Your task to perform on an android device: turn on location history Image 0: 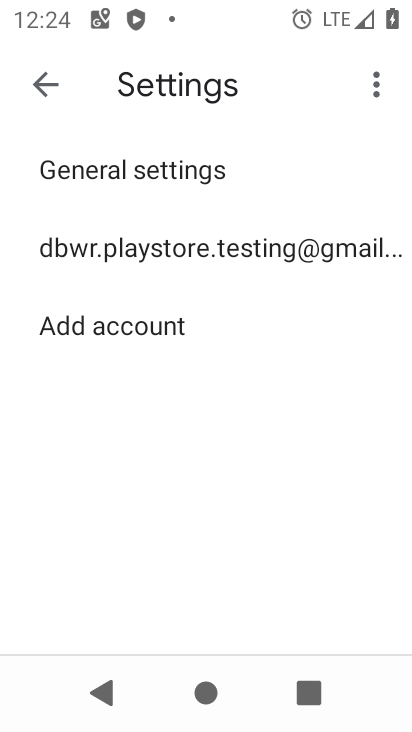
Step 0: press home button
Your task to perform on an android device: turn on location history Image 1: 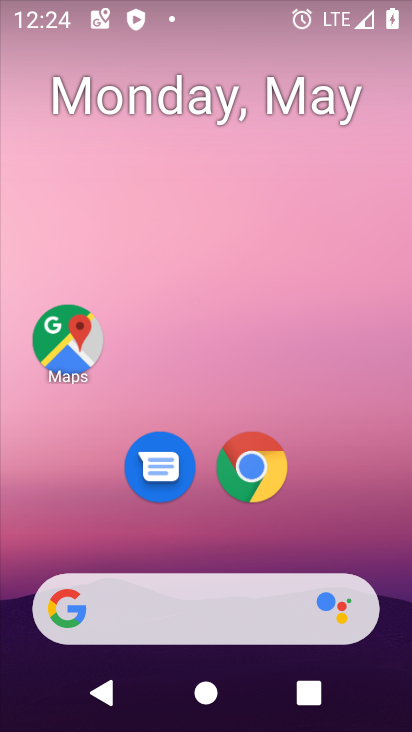
Step 1: click (73, 344)
Your task to perform on an android device: turn on location history Image 2: 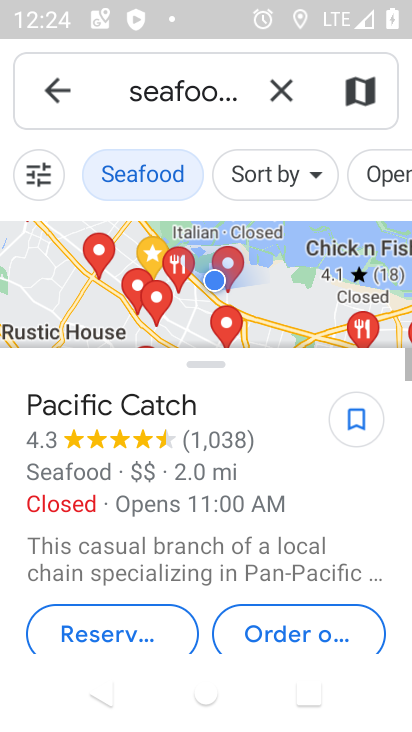
Step 2: click (273, 103)
Your task to perform on an android device: turn on location history Image 3: 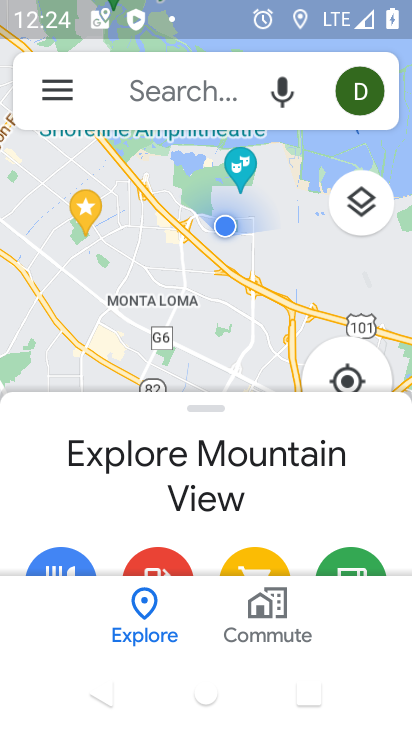
Step 3: click (42, 102)
Your task to perform on an android device: turn on location history Image 4: 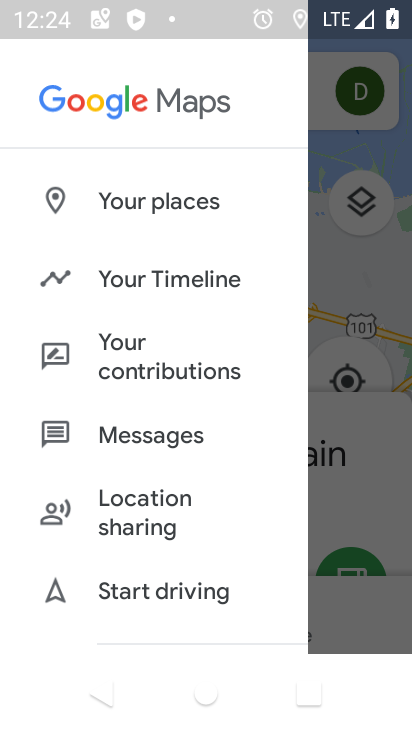
Step 4: click (133, 274)
Your task to perform on an android device: turn on location history Image 5: 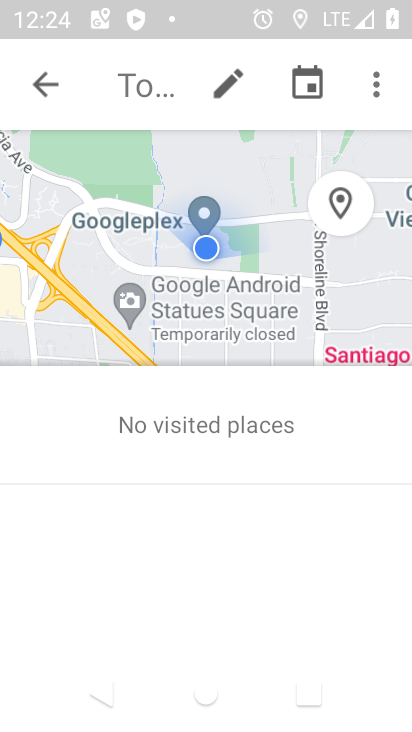
Step 5: click (381, 87)
Your task to perform on an android device: turn on location history Image 6: 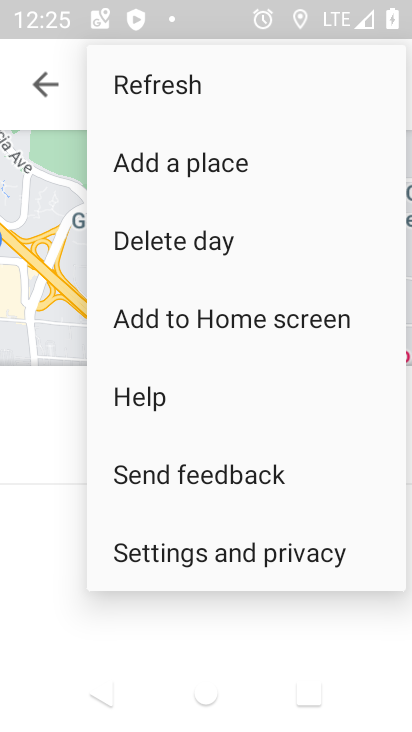
Step 6: click (197, 552)
Your task to perform on an android device: turn on location history Image 7: 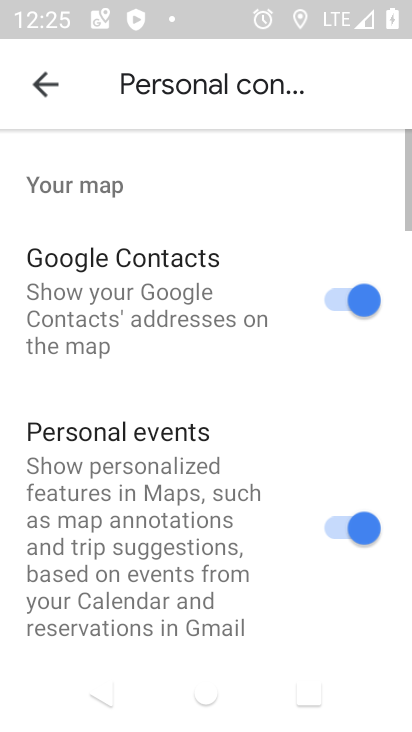
Step 7: drag from (188, 576) to (191, 85)
Your task to perform on an android device: turn on location history Image 8: 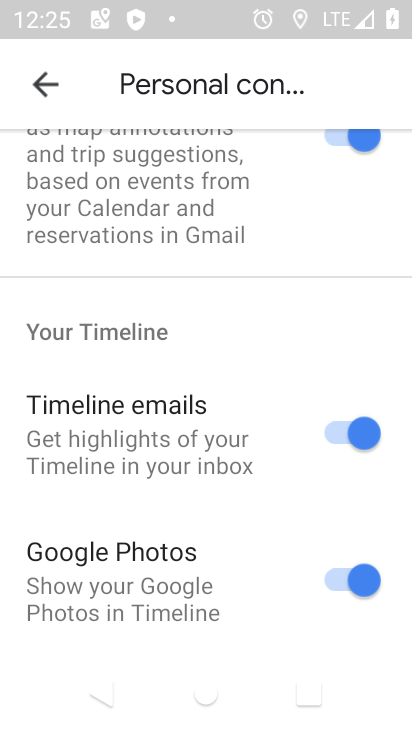
Step 8: drag from (154, 571) to (122, 109)
Your task to perform on an android device: turn on location history Image 9: 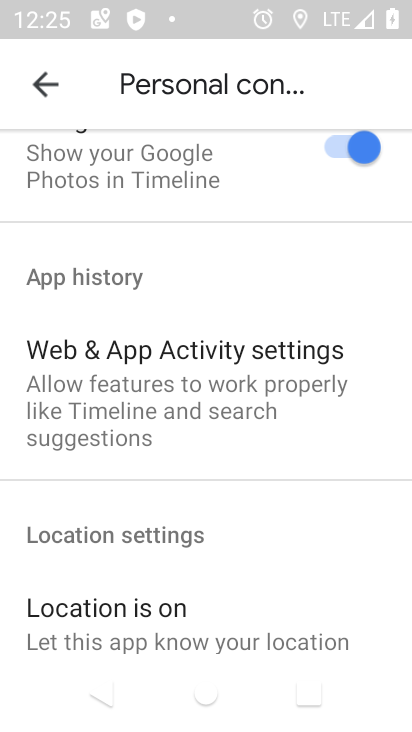
Step 9: drag from (141, 418) to (109, 112)
Your task to perform on an android device: turn on location history Image 10: 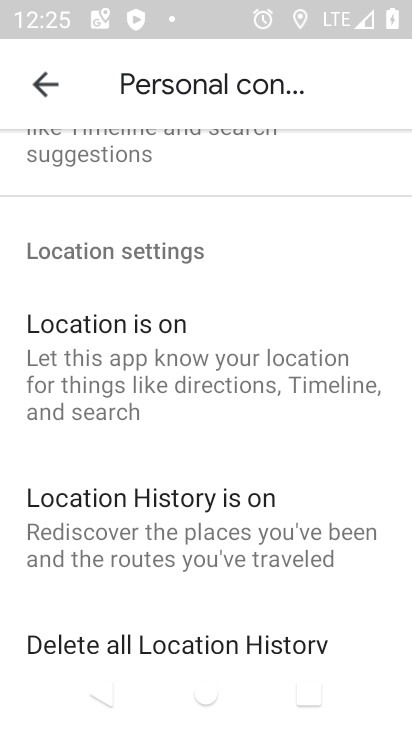
Step 10: drag from (122, 406) to (122, 128)
Your task to perform on an android device: turn on location history Image 11: 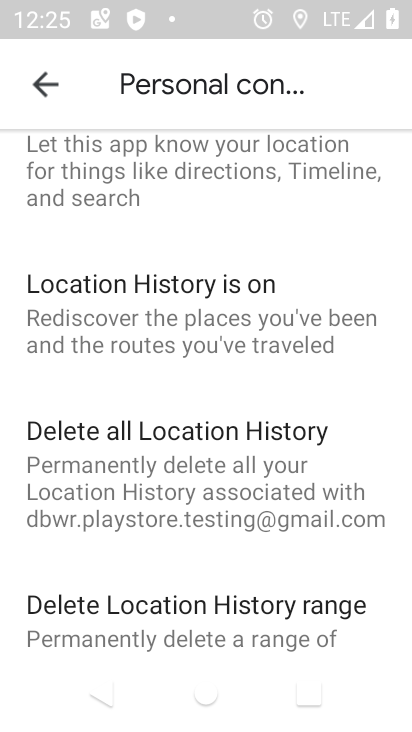
Step 11: click (119, 326)
Your task to perform on an android device: turn on location history Image 12: 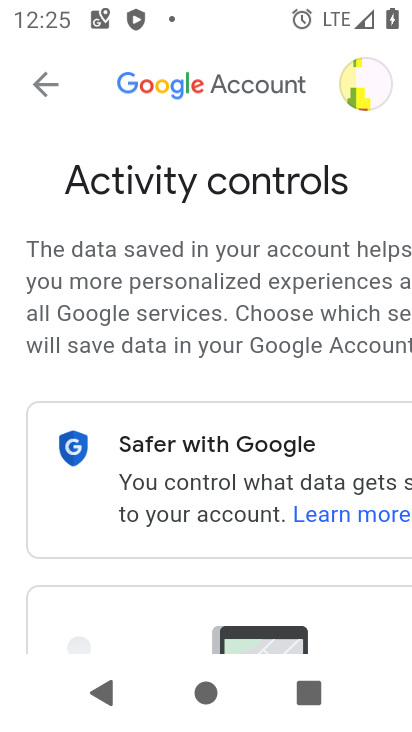
Step 12: task complete